Your task to perform on an android device: check google app version Image 0: 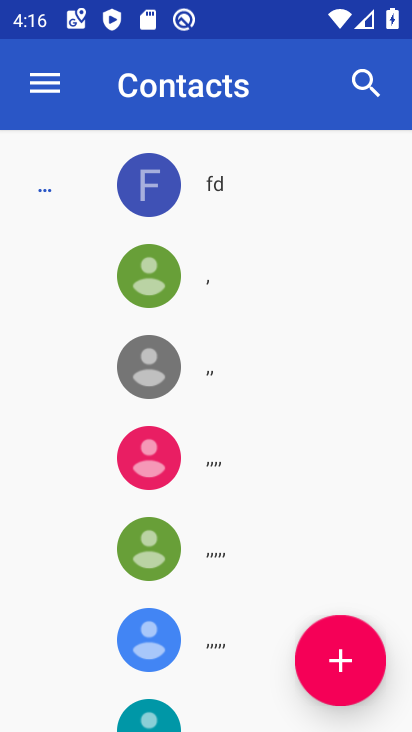
Step 0: press home button
Your task to perform on an android device: check google app version Image 1: 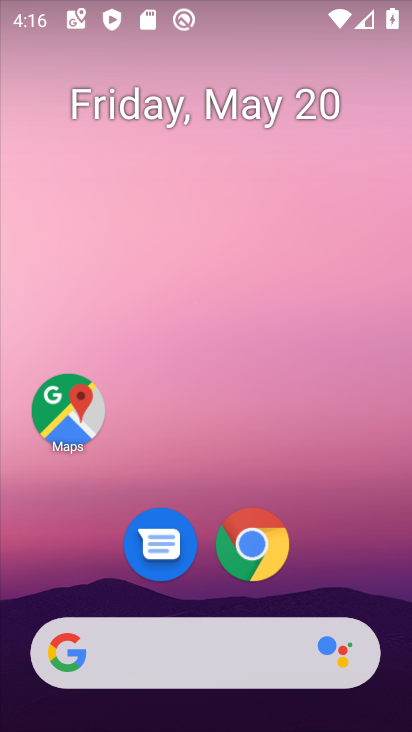
Step 1: drag from (332, 593) to (379, 12)
Your task to perform on an android device: check google app version Image 2: 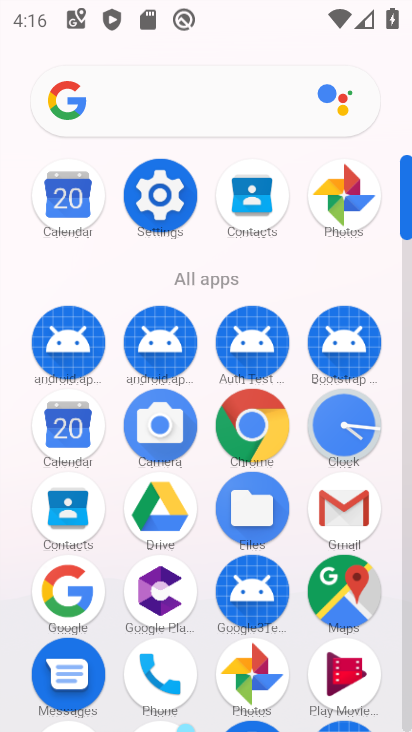
Step 2: click (67, 605)
Your task to perform on an android device: check google app version Image 3: 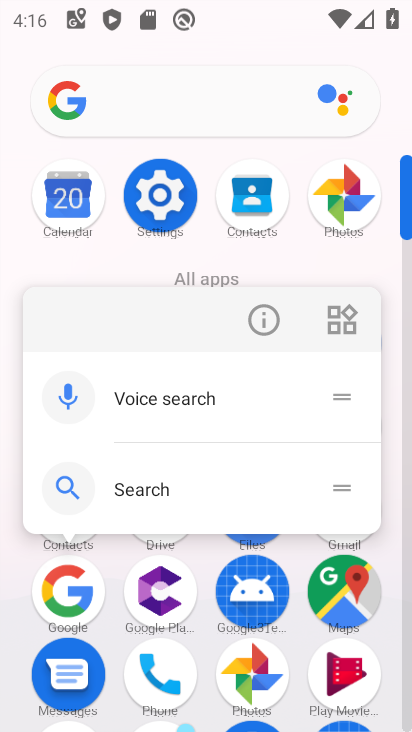
Step 3: click (257, 311)
Your task to perform on an android device: check google app version Image 4: 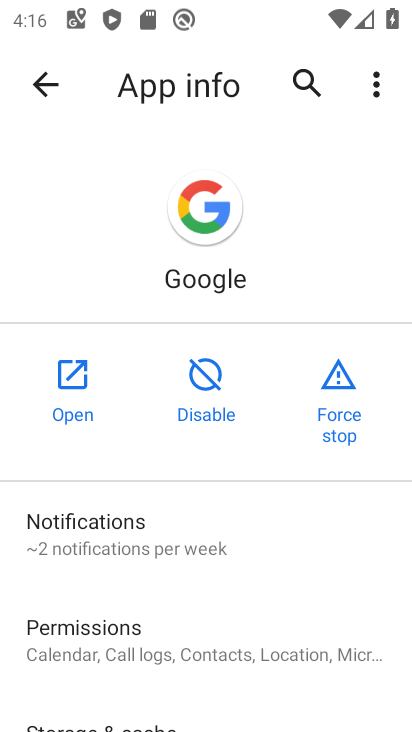
Step 4: drag from (233, 518) to (224, 178)
Your task to perform on an android device: check google app version Image 5: 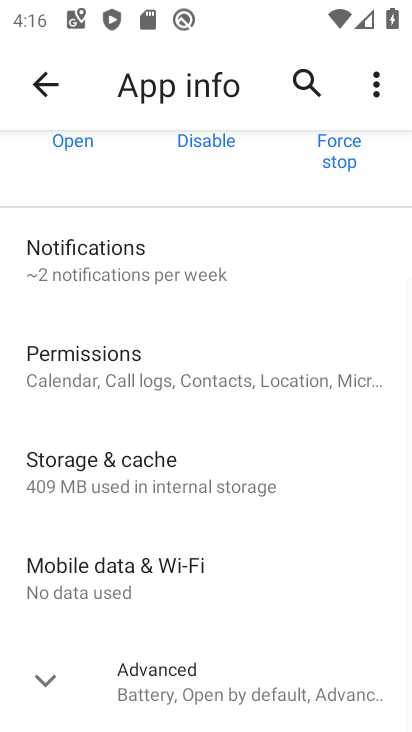
Step 5: drag from (187, 555) to (202, 235)
Your task to perform on an android device: check google app version Image 6: 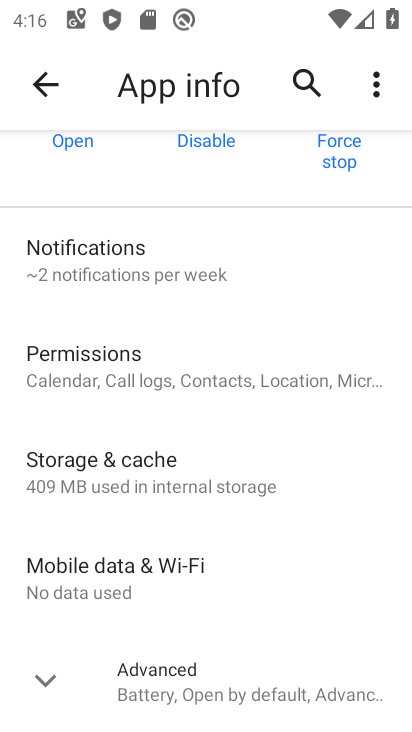
Step 6: click (50, 686)
Your task to perform on an android device: check google app version Image 7: 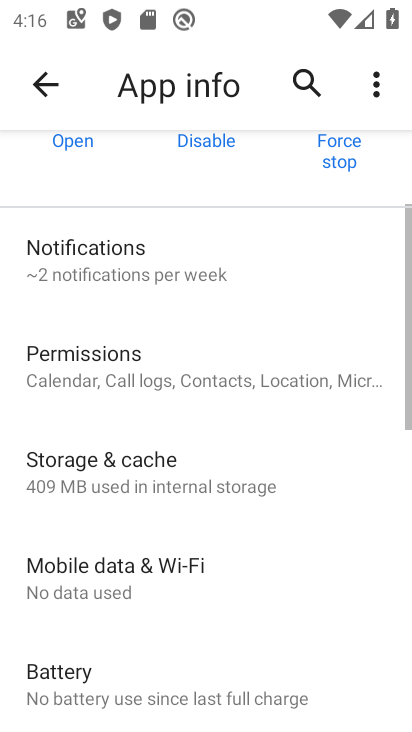
Step 7: task complete